Your task to perform on an android device: Open CNN.com Image 0: 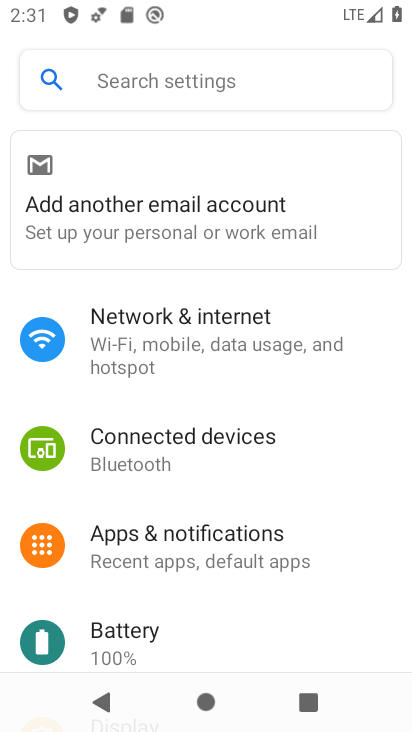
Step 0: press home button
Your task to perform on an android device: Open CNN.com Image 1: 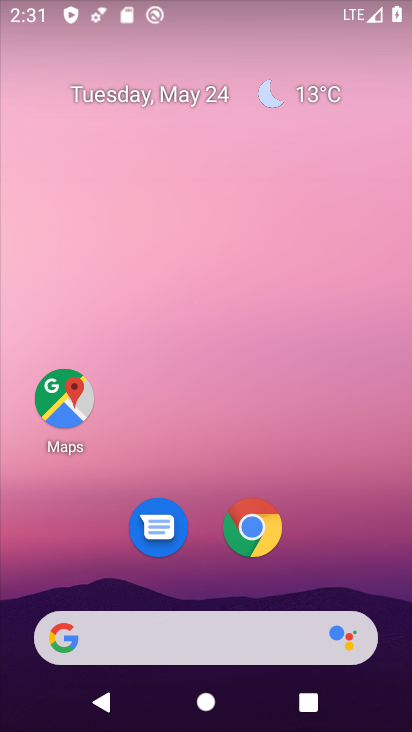
Step 1: click (256, 526)
Your task to perform on an android device: Open CNN.com Image 2: 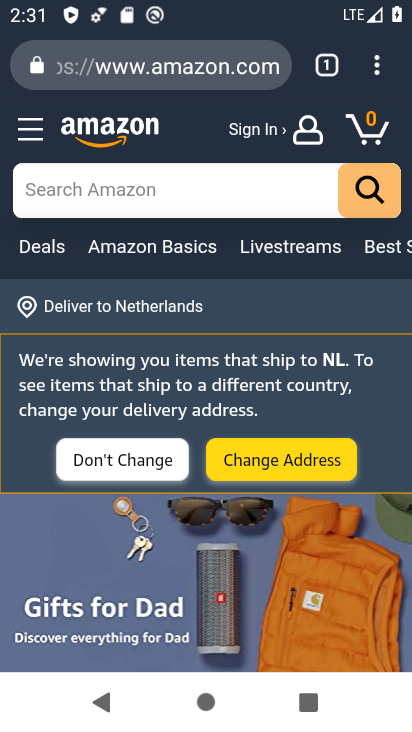
Step 2: click (132, 69)
Your task to perform on an android device: Open CNN.com Image 3: 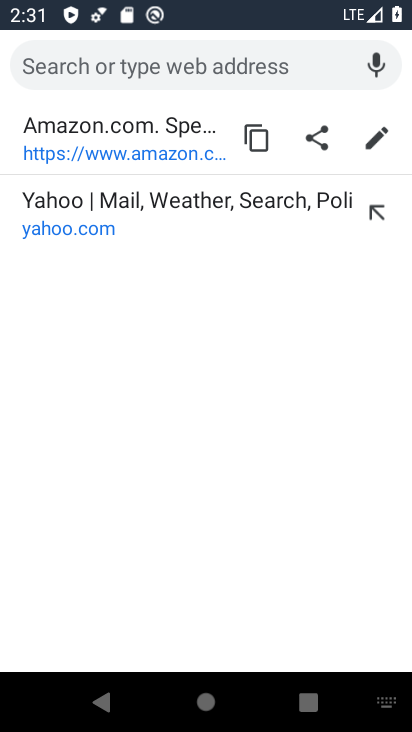
Step 3: type "CNN.com"
Your task to perform on an android device: Open CNN.com Image 4: 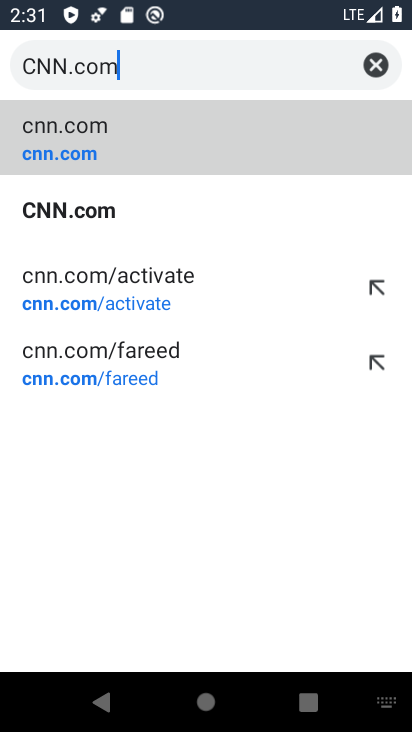
Step 4: click (63, 145)
Your task to perform on an android device: Open CNN.com Image 5: 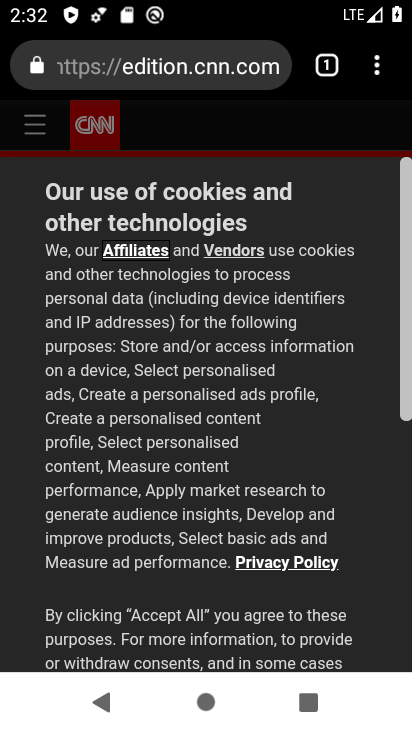
Step 5: task complete